Your task to perform on an android device: turn off location history Image 0: 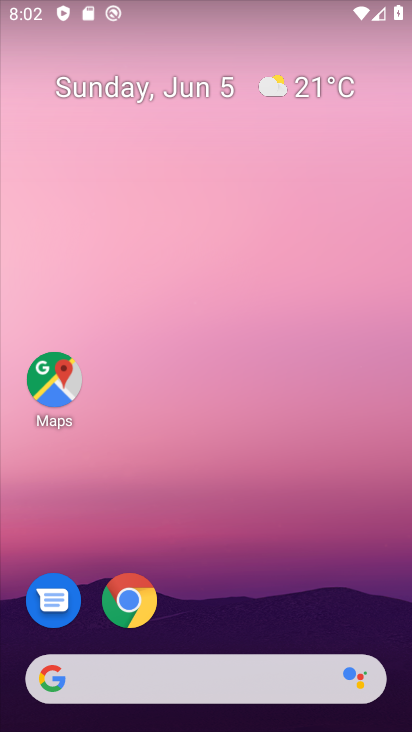
Step 0: click (403, 458)
Your task to perform on an android device: turn off location history Image 1: 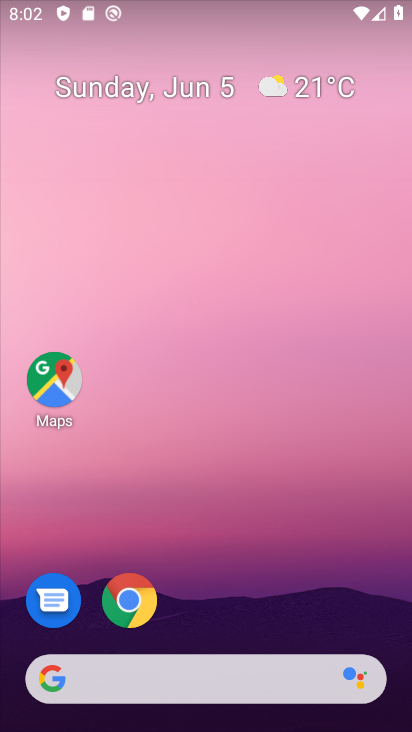
Step 1: drag from (241, 605) to (355, 0)
Your task to perform on an android device: turn off location history Image 2: 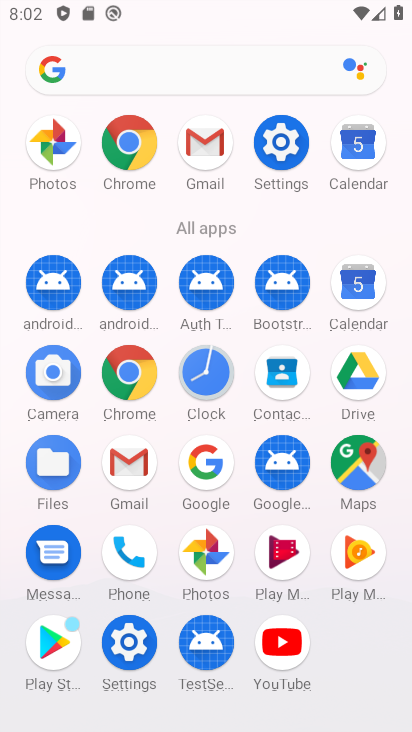
Step 2: click (288, 148)
Your task to perform on an android device: turn off location history Image 3: 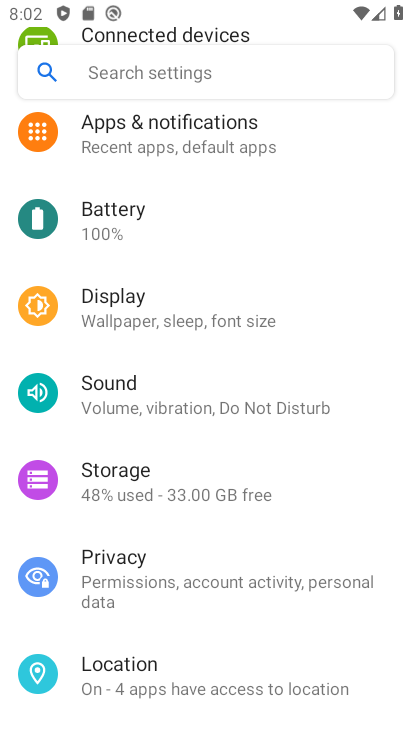
Step 3: click (144, 660)
Your task to perform on an android device: turn off location history Image 4: 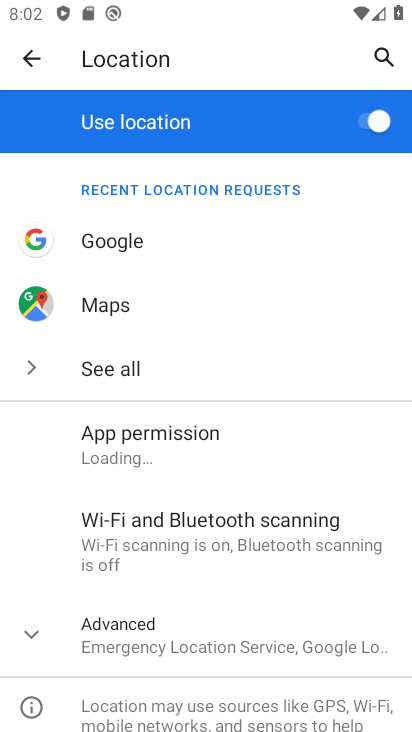
Step 4: click (183, 627)
Your task to perform on an android device: turn off location history Image 5: 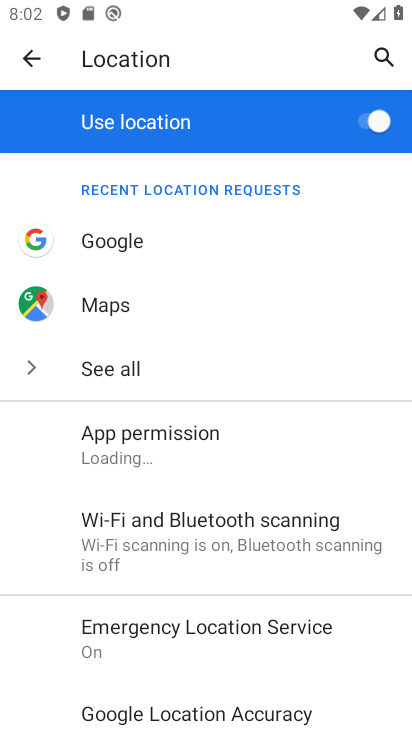
Step 5: drag from (164, 705) to (174, 546)
Your task to perform on an android device: turn off location history Image 6: 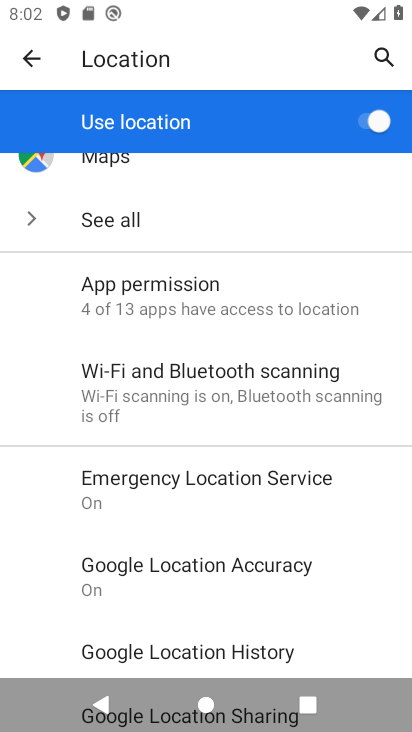
Step 6: click (197, 651)
Your task to perform on an android device: turn off location history Image 7: 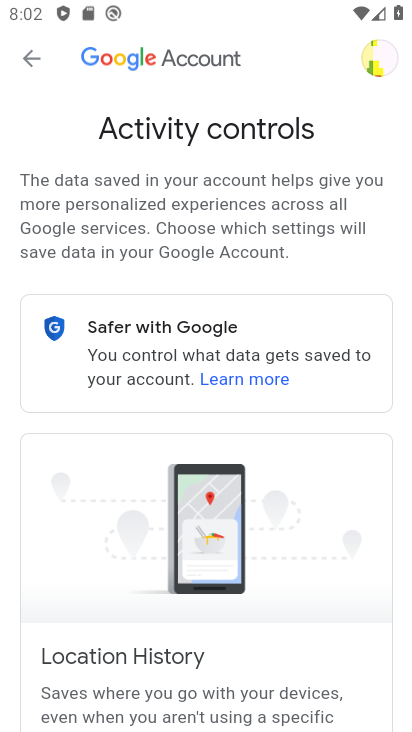
Step 7: drag from (203, 614) to (212, 62)
Your task to perform on an android device: turn off location history Image 8: 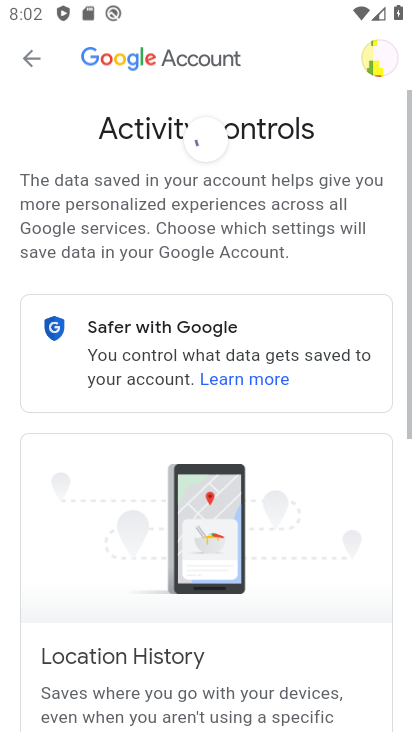
Step 8: click (321, 307)
Your task to perform on an android device: turn off location history Image 9: 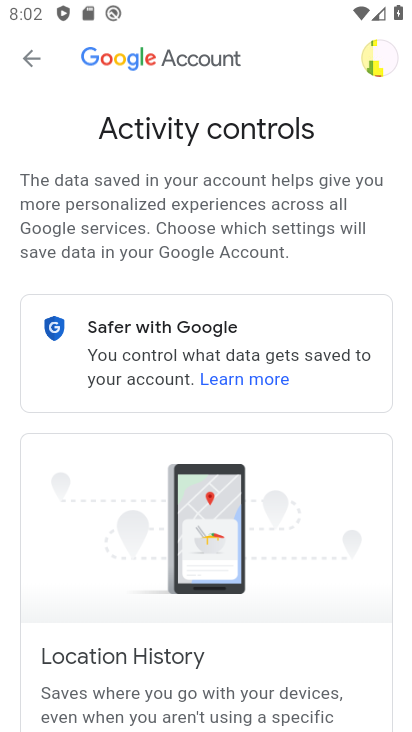
Step 9: drag from (285, 537) to (325, 160)
Your task to perform on an android device: turn off location history Image 10: 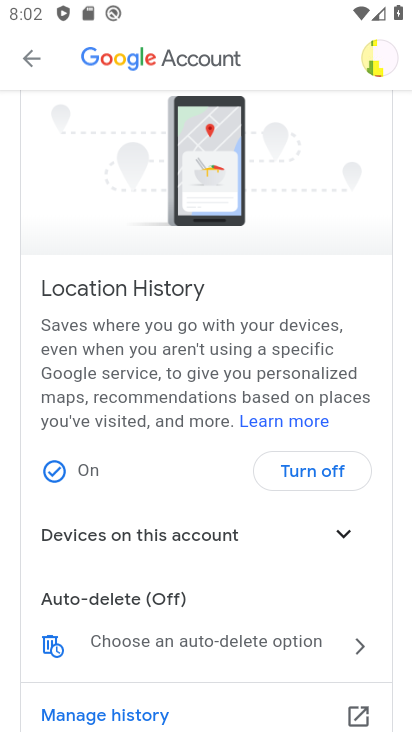
Step 10: click (321, 472)
Your task to perform on an android device: turn off location history Image 11: 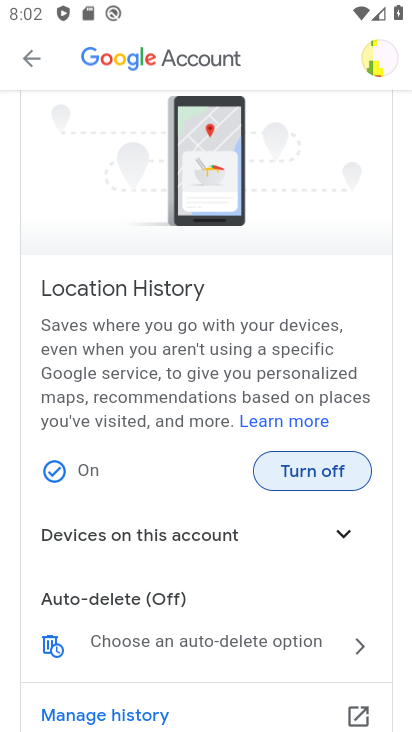
Step 11: click (321, 470)
Your task to perform on an android device: turn off location history Image 12: 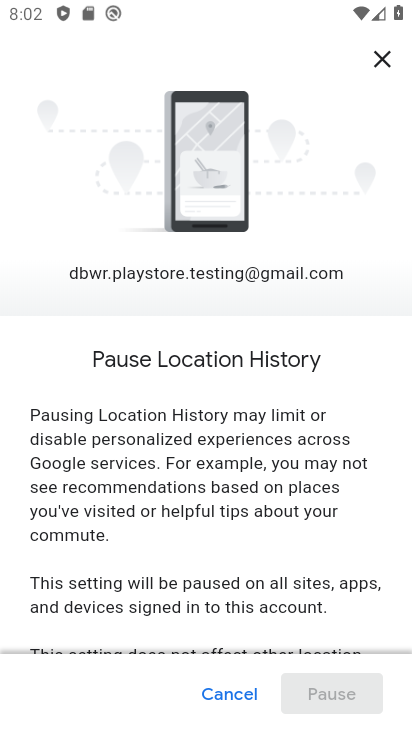
Step 12: drag from (312, 541) to (312, 4)
Your task to perform on an android device: turn off location history Image 13: 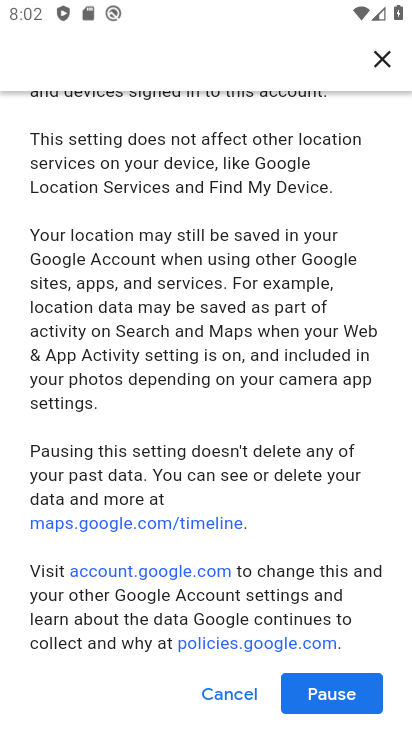
Step 13: drag from (299, 553) to (301, 90)
Your task to perform on an android device: turn off location history Image 14: 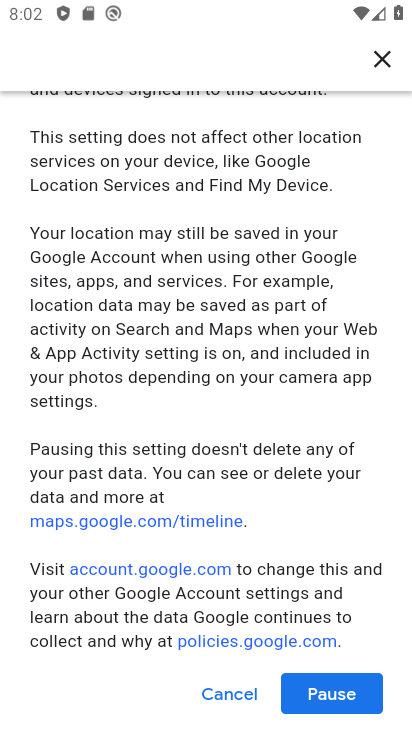
Step 14: click (343, 701)
Your task to perform on an android device: turn off location history Image 15: 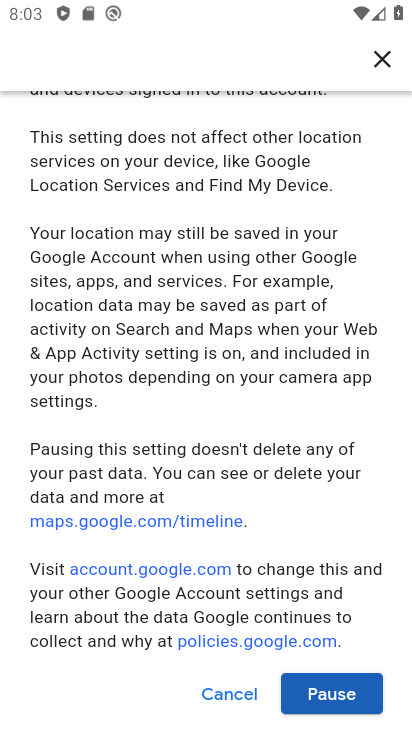
Step 15: click (347, 693)
Your task to perform on an android device: turn off location history Image 16: 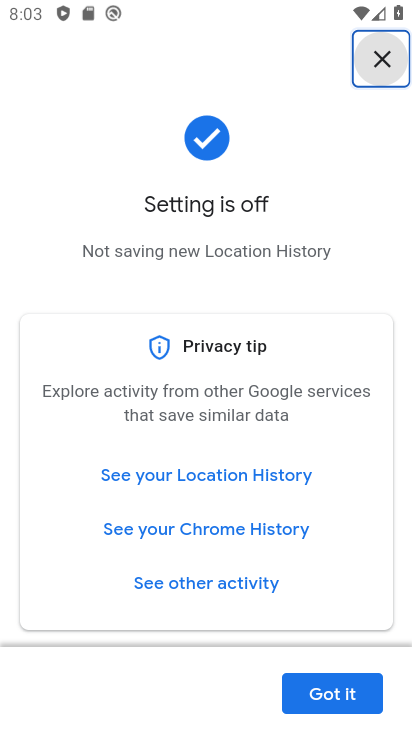
Step 16: task complete